Your task to perform on an android device: Turn on the flashlight Image 0: 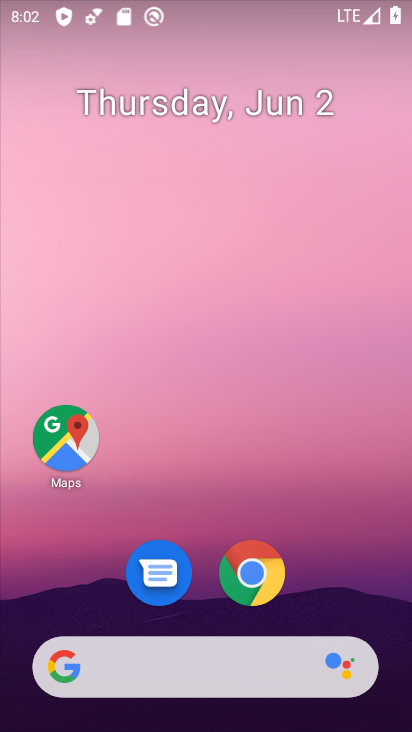
Step 0: drag from (360, 571) to (408, 276)
Your task to perform on an android device: Turn on the flashlight Image 1: 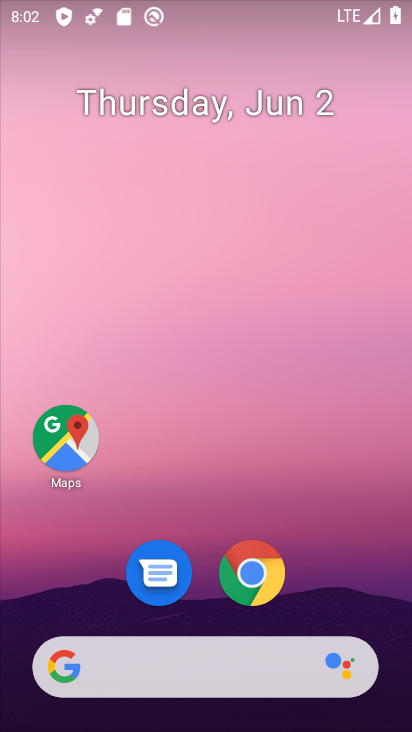
Step 1: click (173, 210)
Your task to perform on an android device: Turn on the flashlight Image 2: 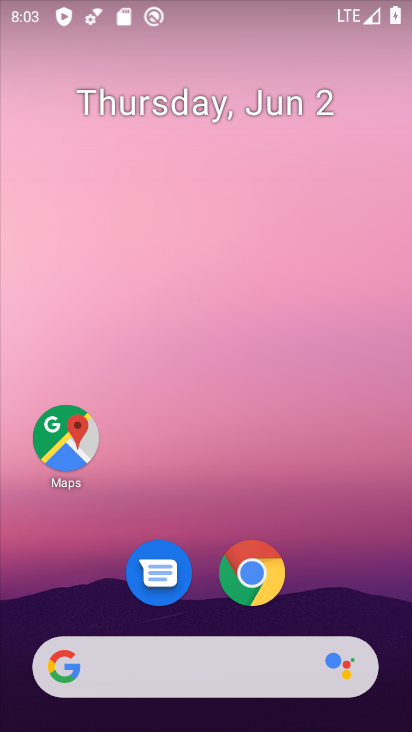
Step 2: drag from (335, 576) to (255, 29)
Your task to perform on an android device: Turn on the flashlight Image 3: 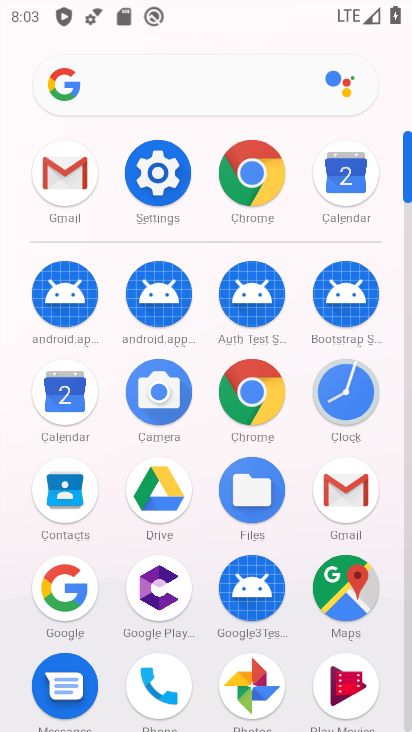
Step 3: click (131, 216)
Your task to perform on an android device: Turn on the flashlight Image 4: 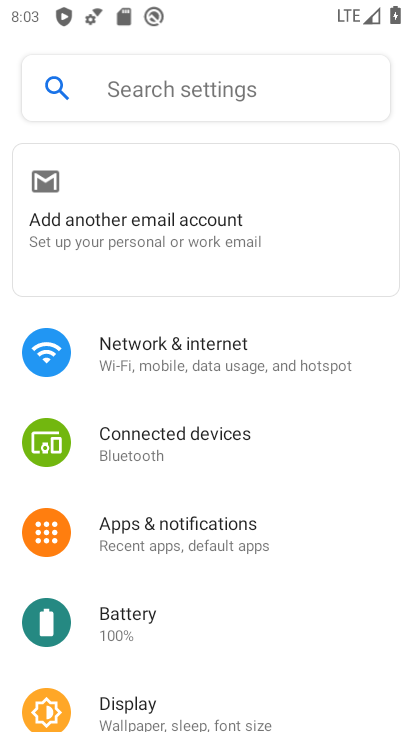
Step 4: task complete